Your task to perform on an android device: Check the news Image 0: 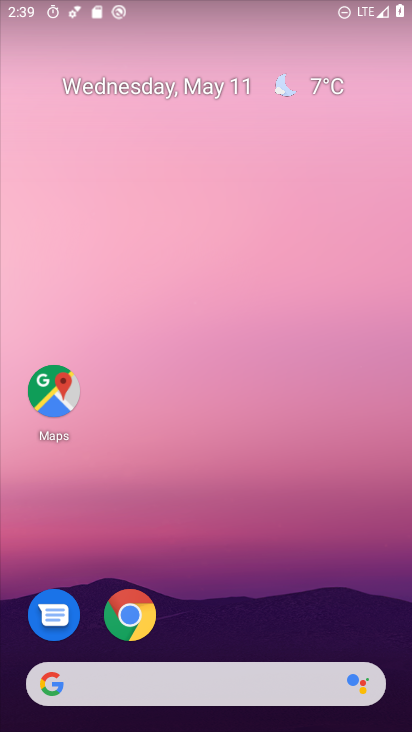
Step 0: drag from (19, 269) to (376, 241)
Your task to perform on an android device: Check the news Image 1: 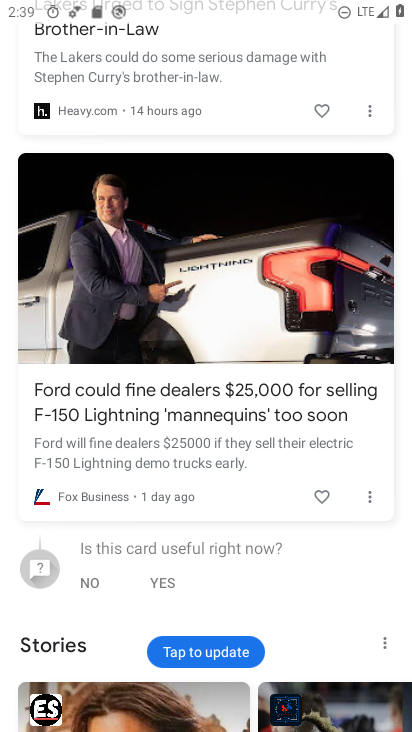
Step 1: task complete